Your task to perform on an android device: Open my contact list Image 0: 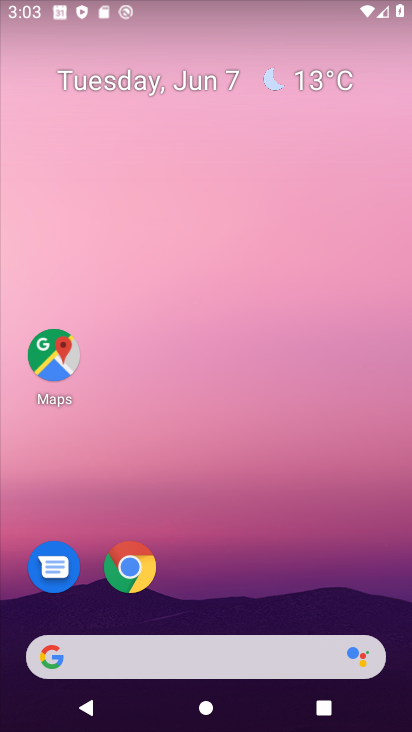
Step 0: press home button
Your task to perform on an android device: Open my contact list Image 1: 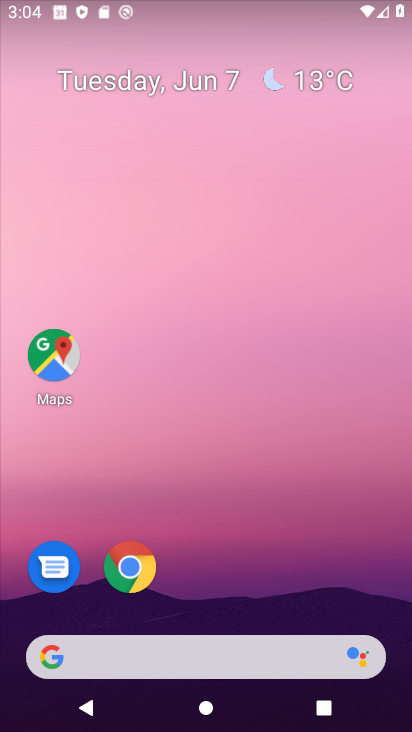
Step 1: drag from (200, 577) to (150, 34)
Your task to perform on an android device: Open my contact list Image 2: 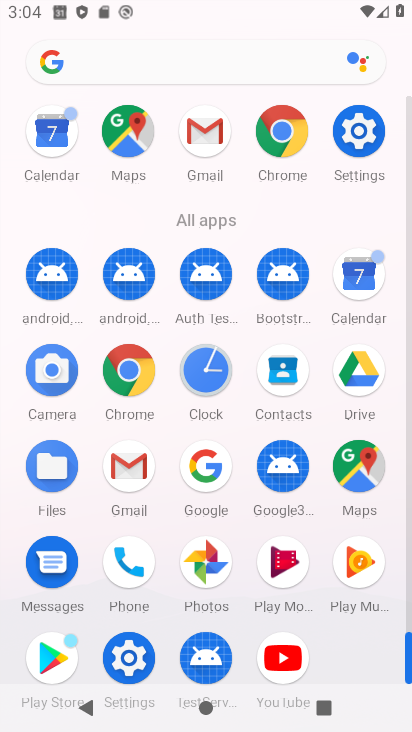
Step 2: click (287, 374)
Your task to perform on an android device: Open my contact list Image 3: 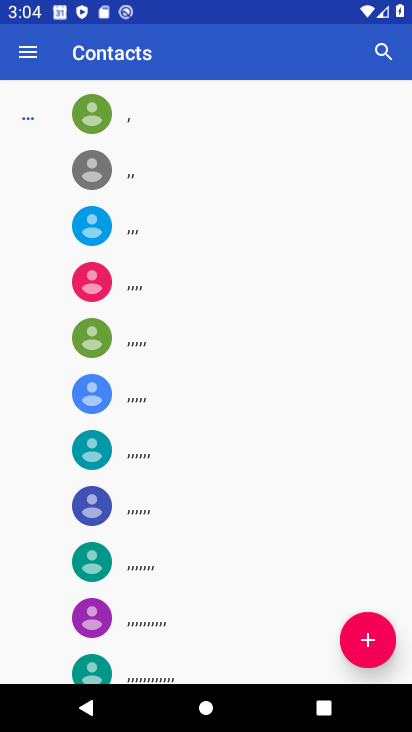
Step 3: task complete